Your task to perform on an android device: allow cookies in the chrome app Image 0: 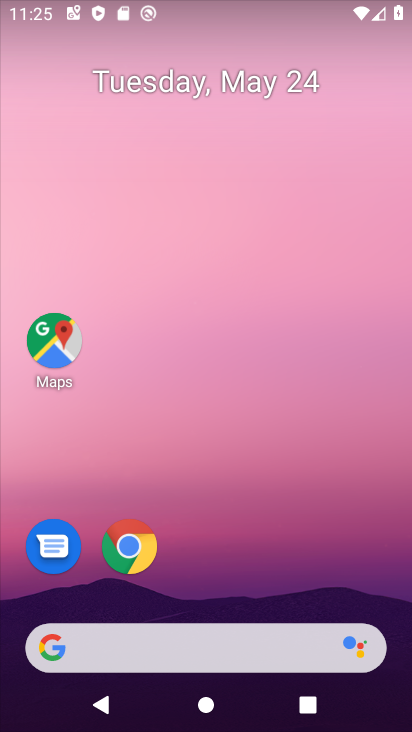
Step 0: drag from (229, 589) to (251, 90)
Your task to perform on an android device: allow cookies in the chrome app Image 1: 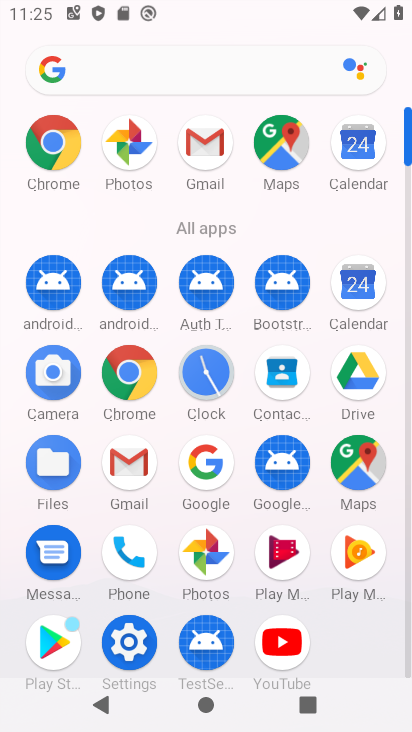
Step 1: click (49, 150)
Your task to perform on an android device: allow cookies in the chrome app Image 2: 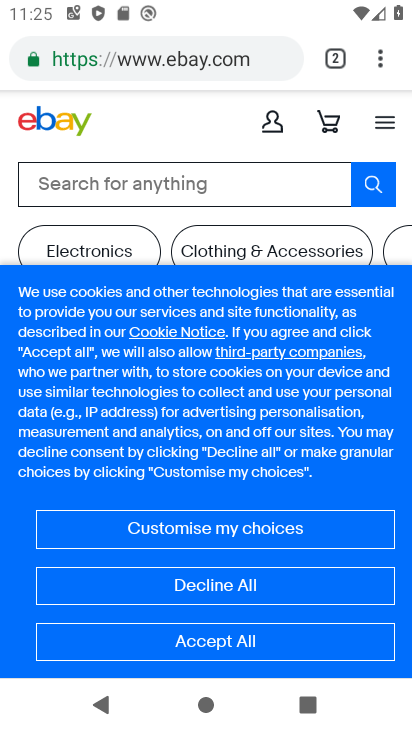
Step 2: click (385, 60)
Your task to perform on an android device: allow cookies in the chrome app Image 3: 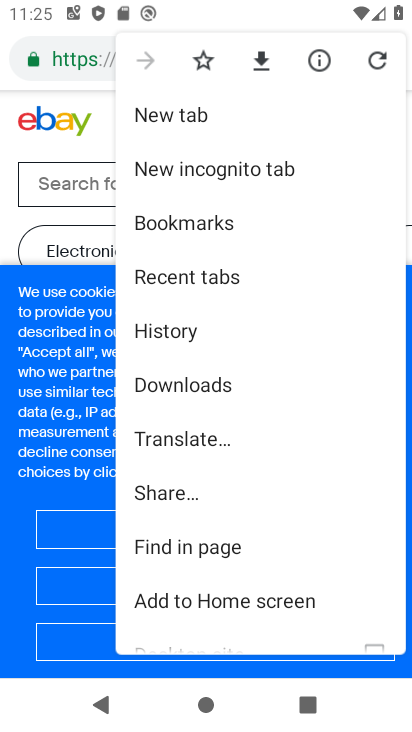
Step 3: drag from (213, 539) to (225, 65)
Your task to perform on an android device: allow cookies in the chrome app Image 4: 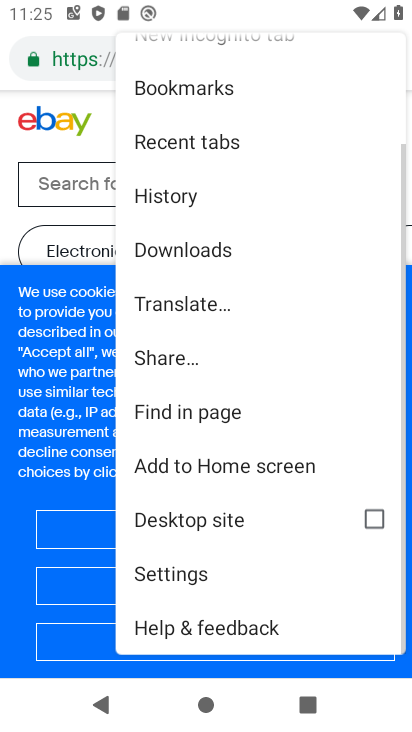
Step 4: click (160, 579)
Your task to perform on an android device: allow cookies in the chrome app Image 5: 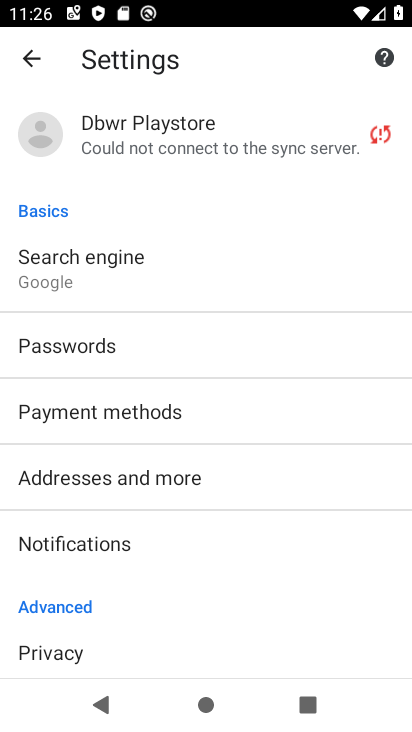
Step 5: drag from (166, 600) to (170, 330)
Your task to perform on an android device: allow cookies in the chrome app Image 6: 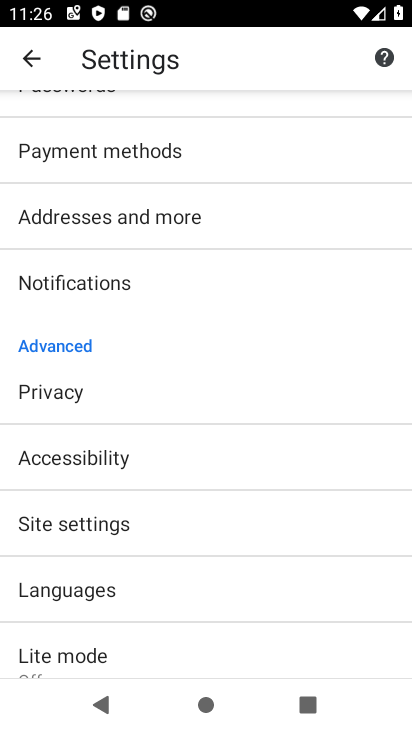
Step 6: click (152, 520)
Your task to perform on an android device: allow cookies in the chrome app Image 7: 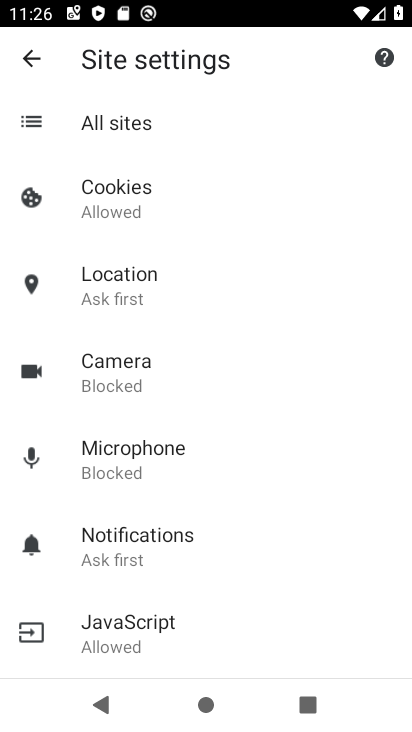
Step 7: click (205, 209)
Your task to perform on an android device: allow cookies in the chrome app Image 8: 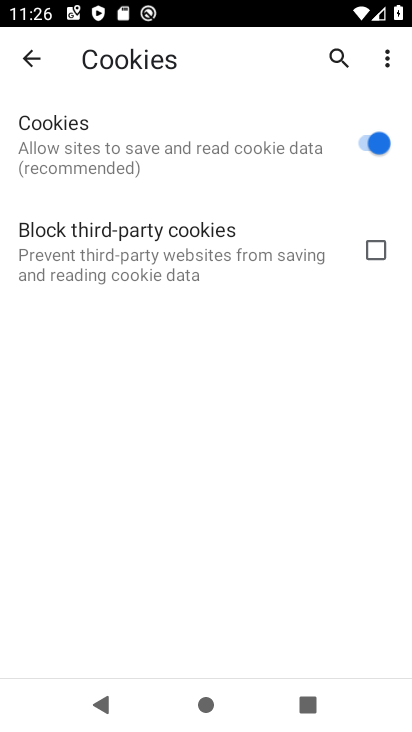
Step 8: task complete